Your task to perform on an android device: Open the phone app and click the voicemail tab. Image 0: 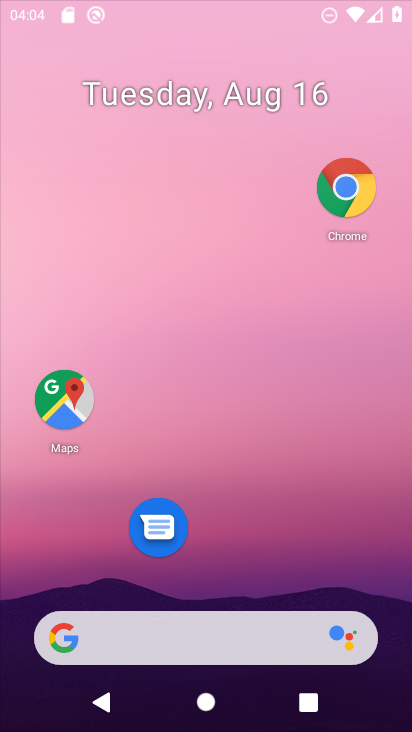
Step 0: press home button
Your task to perform on an android device: Open the phone app and click the voicemail tab. Image 1: 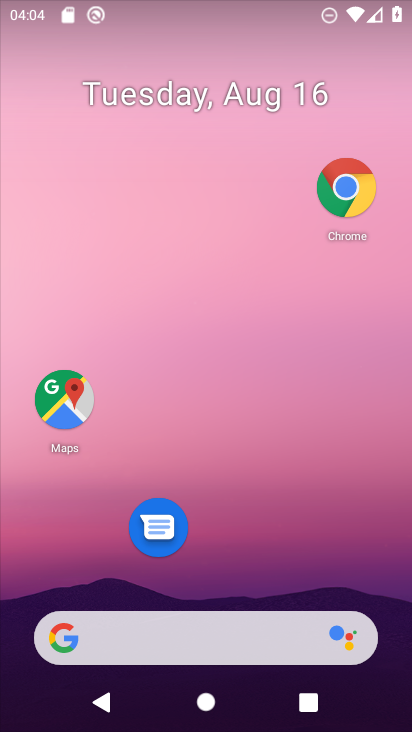
Step 1: drag from (221, 591) to (228, 63)
Your task to perform on an android device: Open the phone app and click the voicemail tab. Image 2: 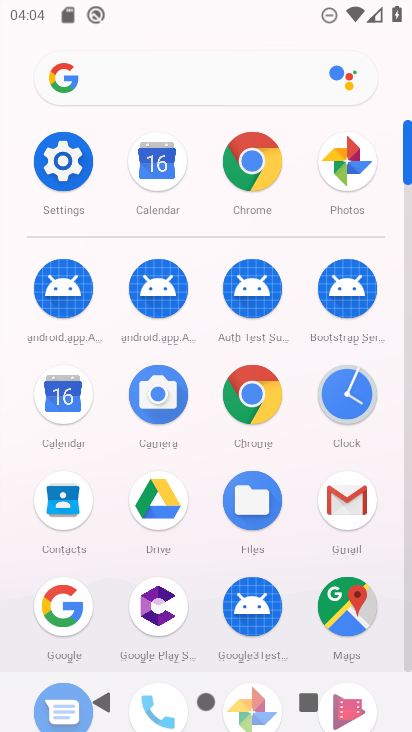
Step 2: drag from (203, 599) to (238, 162)
Your task to perform on an android device: Open the phone app and click the voicemail tab. Image 3: 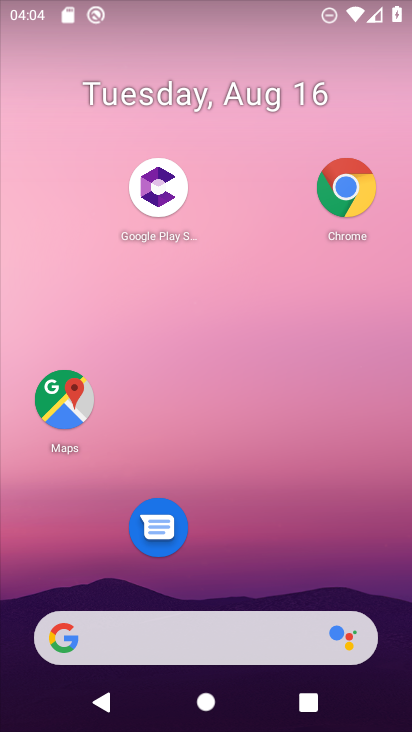
Step 3: drag from (258, 584) to (265, 40)
Your task to perform on an android device: Open the phone app and click the voicemail tab. Image 4: 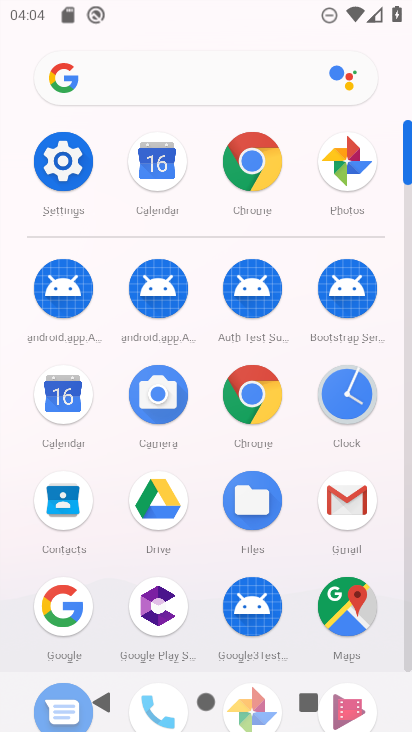
Step 4: drag from (207, 580) to (217, 129)
Your task to perform on an android device: Open the phone app and click the voicemail tab. Image 5: 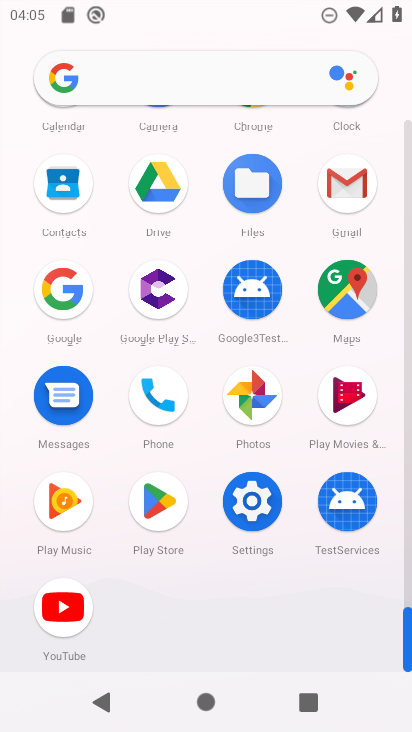
Step 5: click (155, 387)
Your task to perform on an android device: Open the phone app and click the voicemail tab. Image 6: 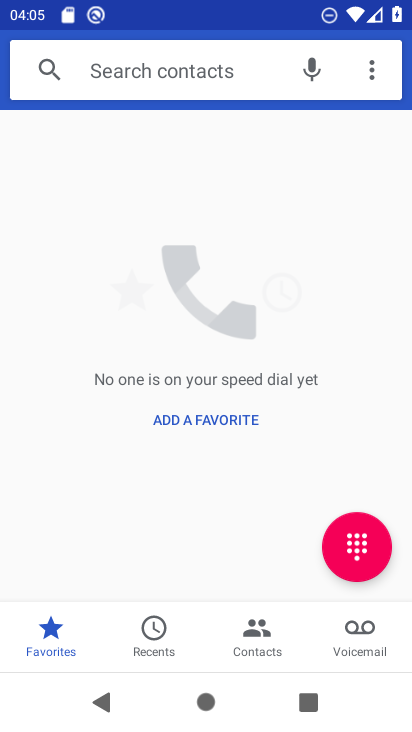
Step 6: click (361, 623)
Your task to perform on an android device: Open the phone app and click the voicemail tab. Image 7: 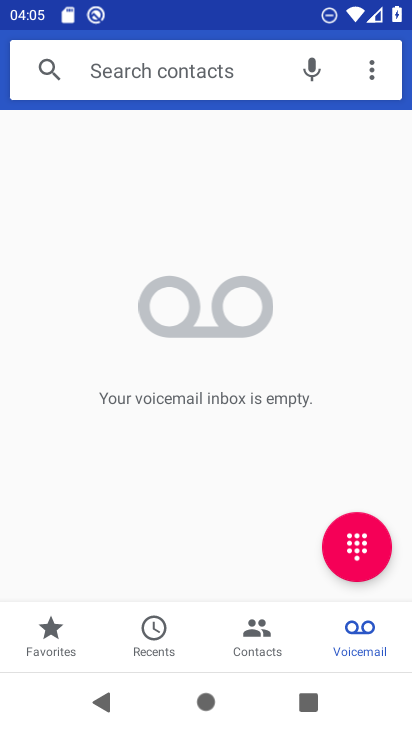
Step 7: task complete